Your task to perform on an android device: add a contact in the contacts app Image 0: 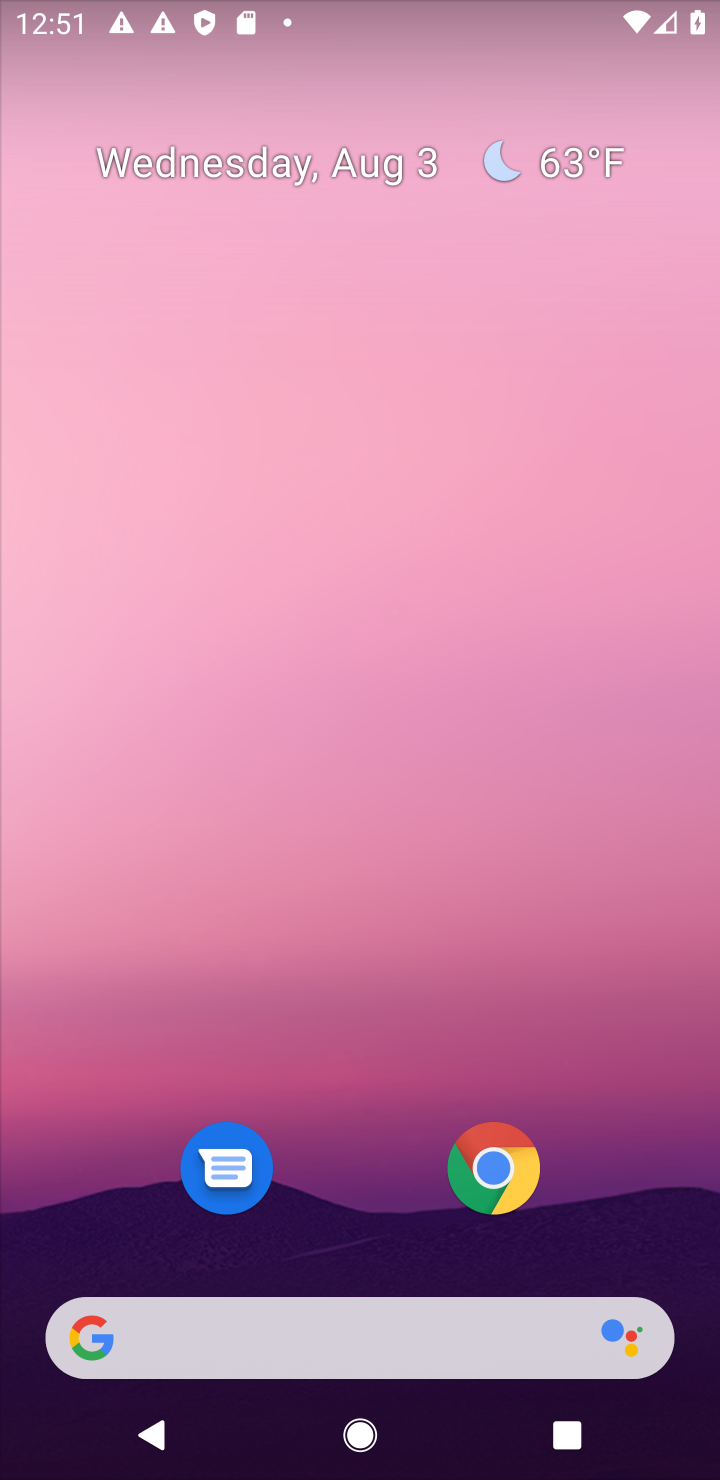
Step 0: drag from (655, 998) to (619, 177)
Your task to perform on an android device: add a contact in the contacts app Image 1: 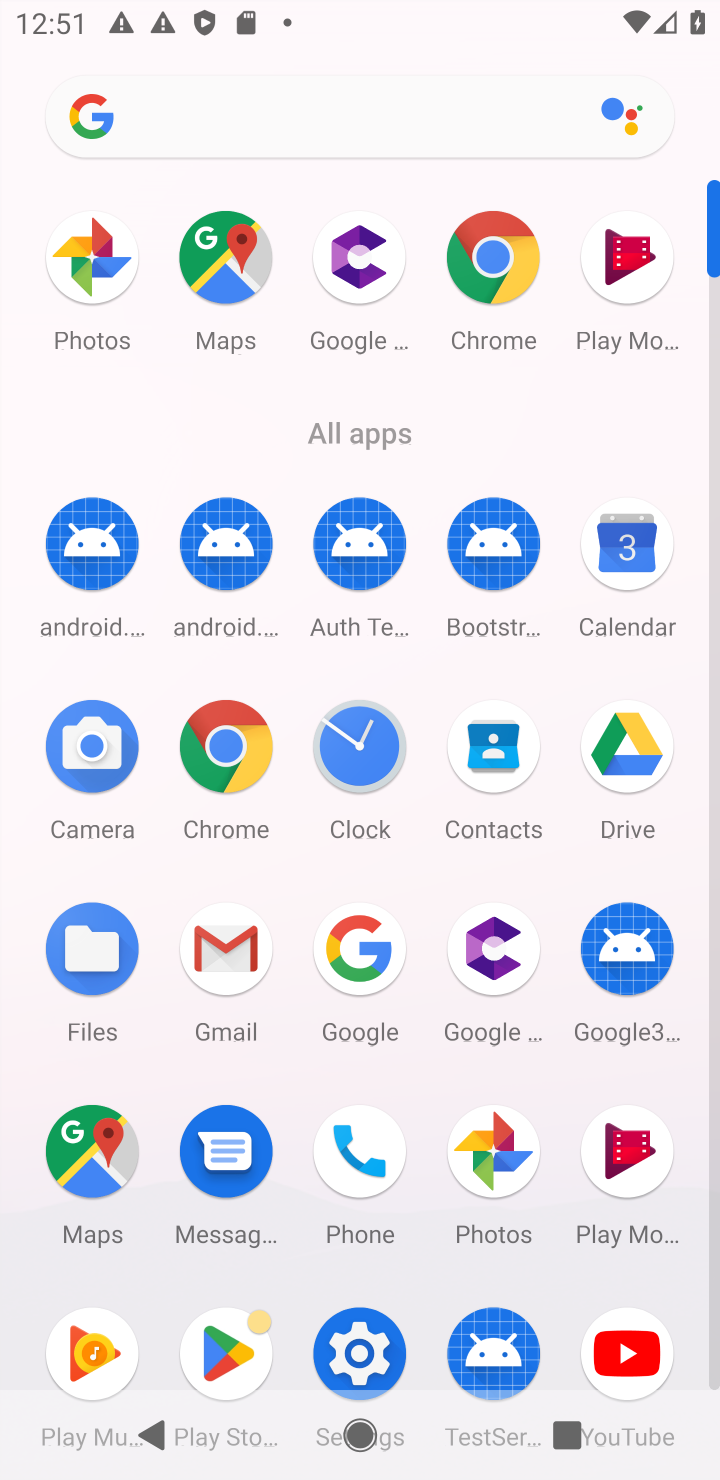
Step 1: click (492, 749)
Your task to perform on an android device: add a contact in the contacts app Image 2: 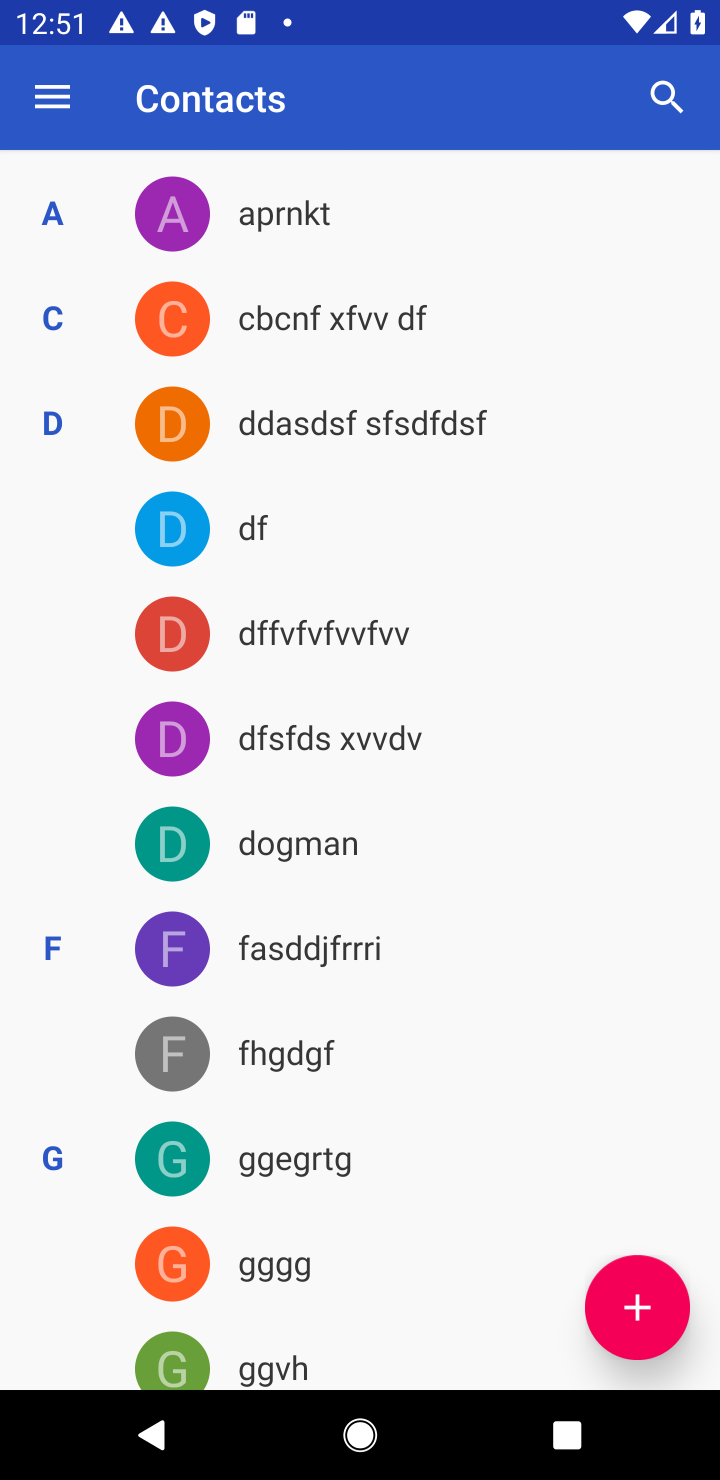
Step 2: click (638, 1307)
Your task to perform on an android device: add a contact in the contacts app Image 3: 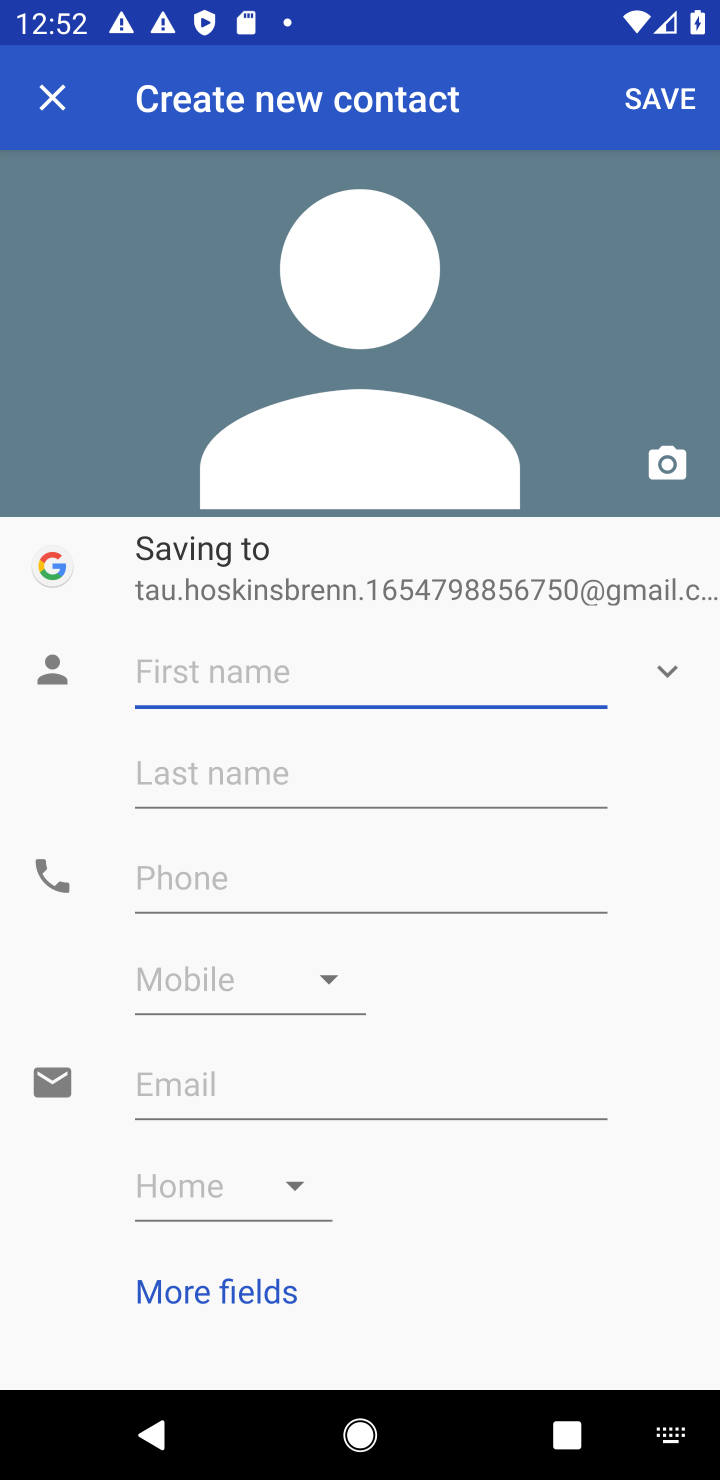
Step 3: type "mbhgsg"
Your task to perform on an android device: add a contact in the contacts app Image 4: 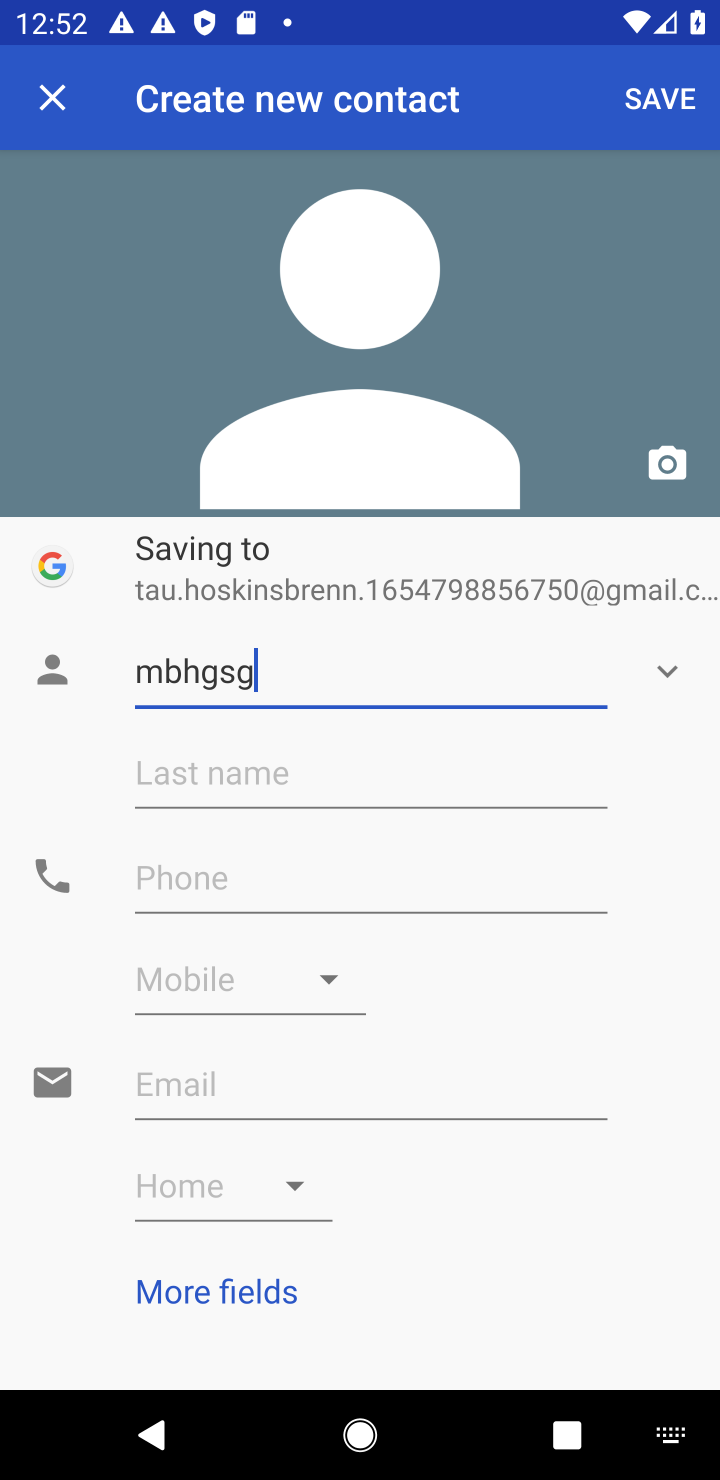
Step 4: click (205, 884)
Your task to perform on an android device: add a contact in the contacts app Image 5: 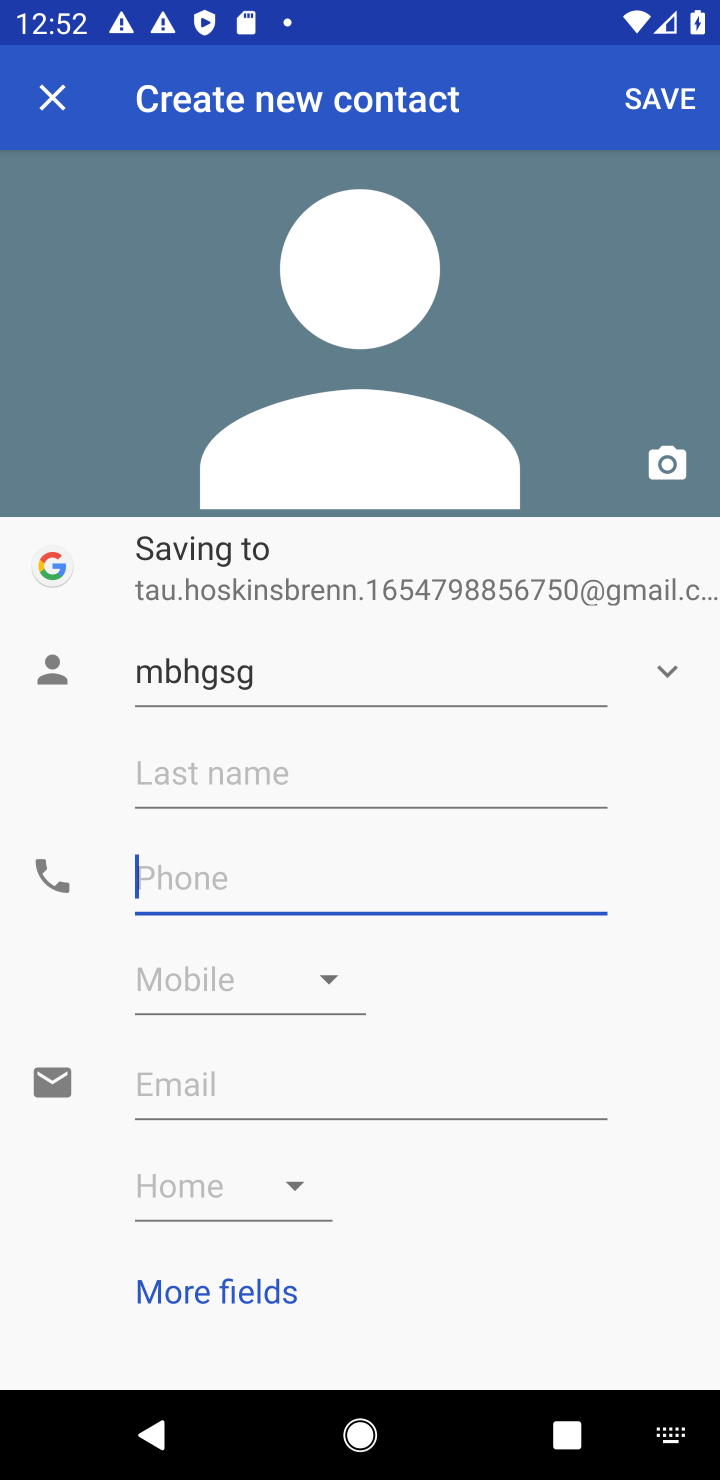
Step 5: type "0995567335"
Your task to perform on an android device: add a contact in the contacts app Image 6: 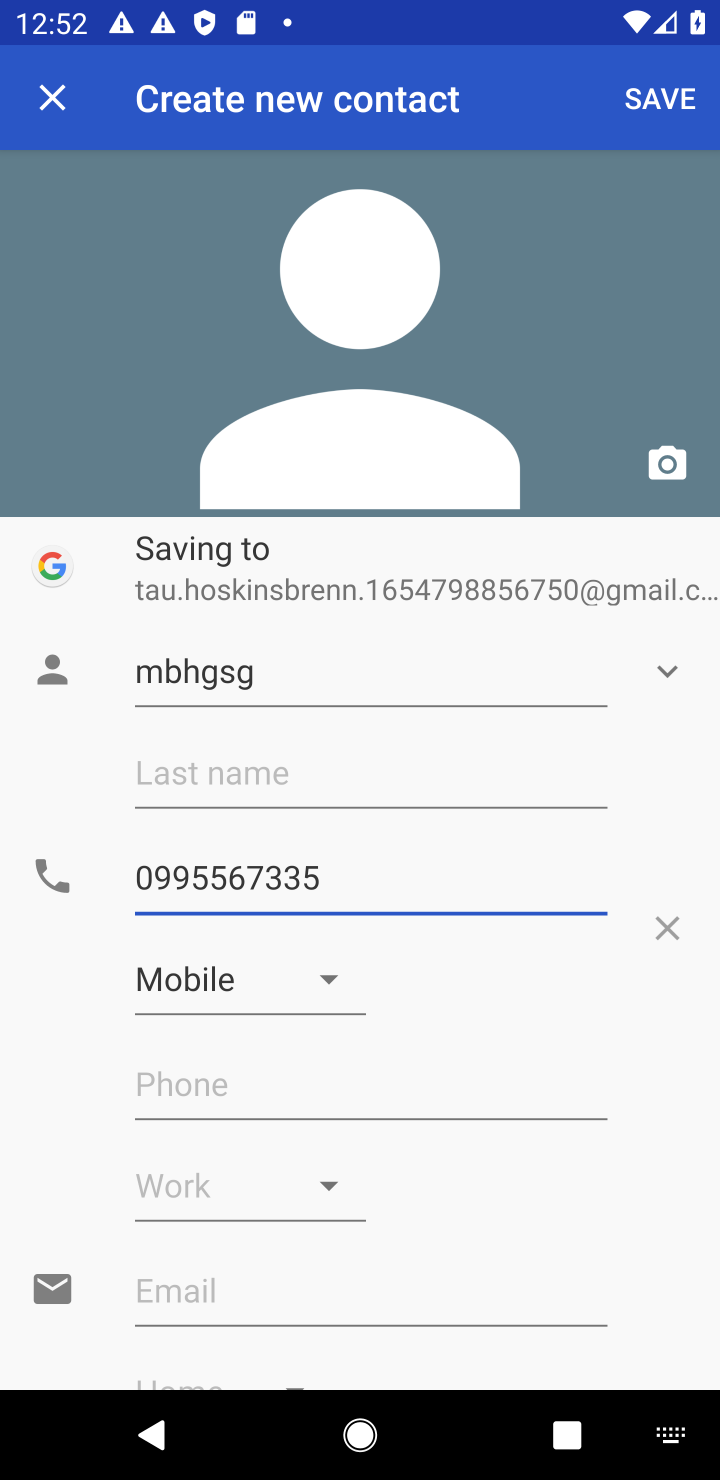
Step 6: click (664, 101)
Your task to perform on an android device: add a contact in the contacts app Image 7: 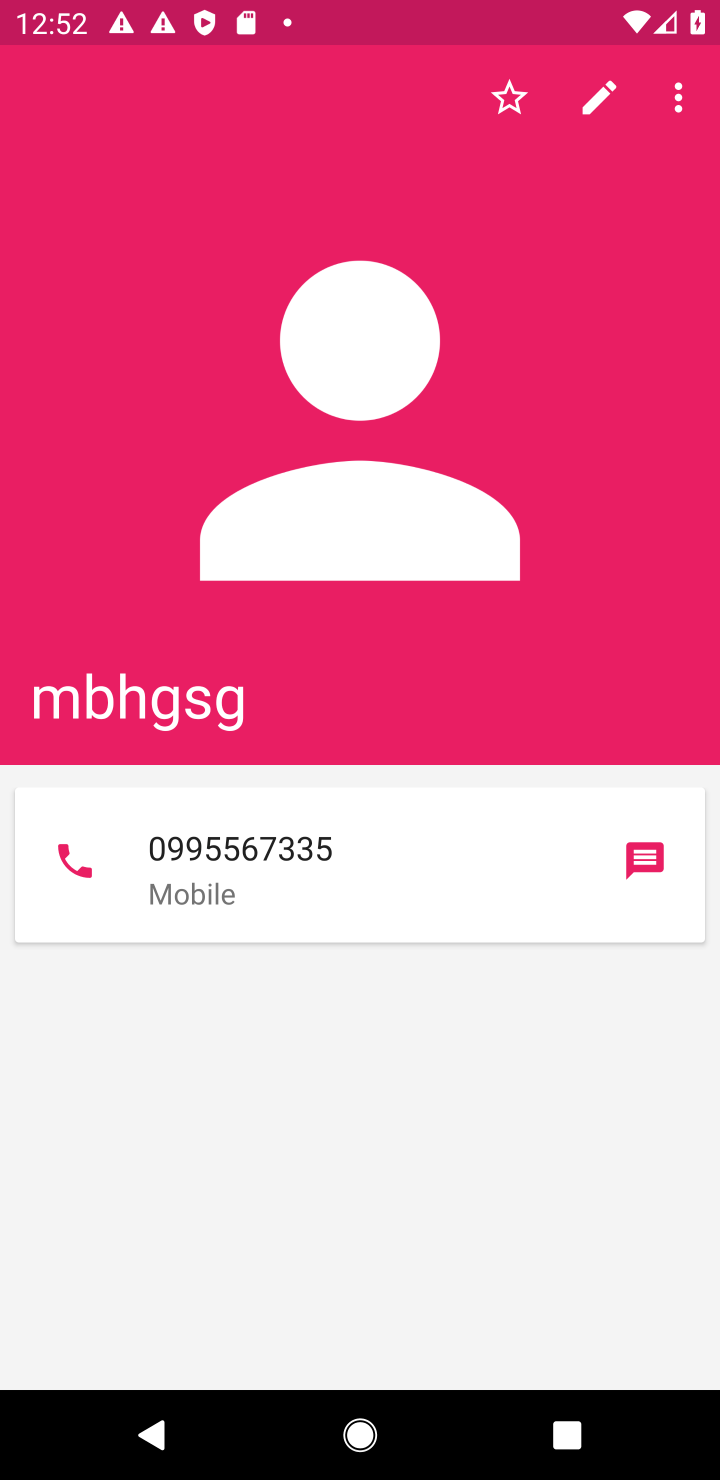
Step 7: task complete